Your task to perform on an android device: Do I have any events this weekend? Image 0: 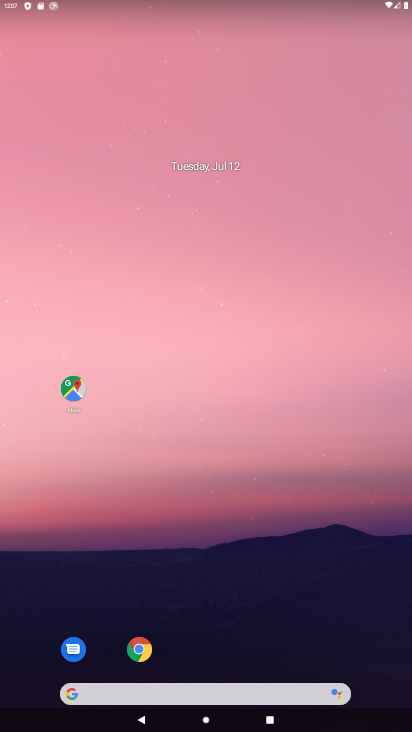
Step 0: drag from (271, 625) to (258, 31)
Your task to perform on an android device: Do I have any events this weekend? Image 1: 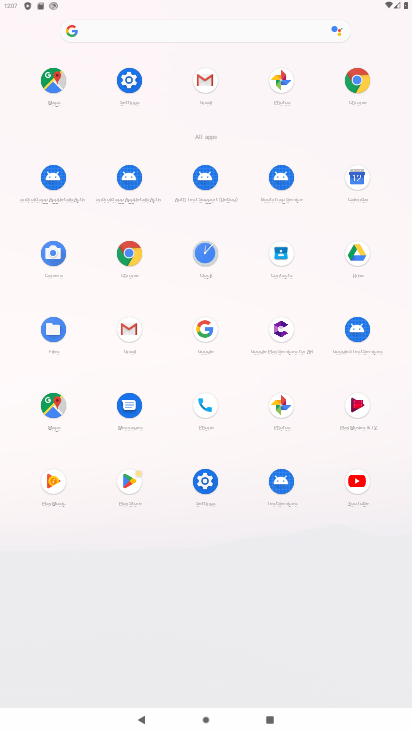
Step 1: click (144, 91)
Your task to perform on an android device: Do I have any events this weekend? Image 2: 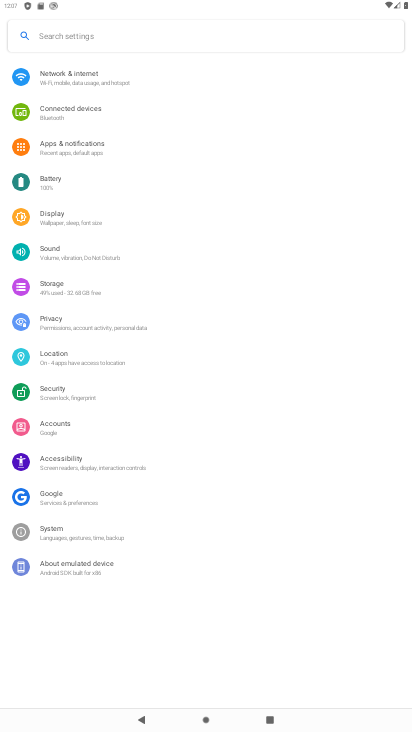
Step 2: press back button
Your task to perform on an android device: Do I have any events this weekend? Image 3: 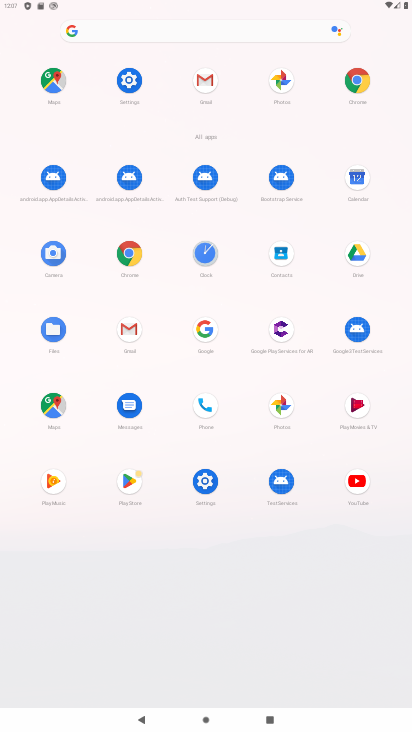
Step 3: click (354, 189)
Your task to perform on an android device: Do I have any events this weekend? Image 4: 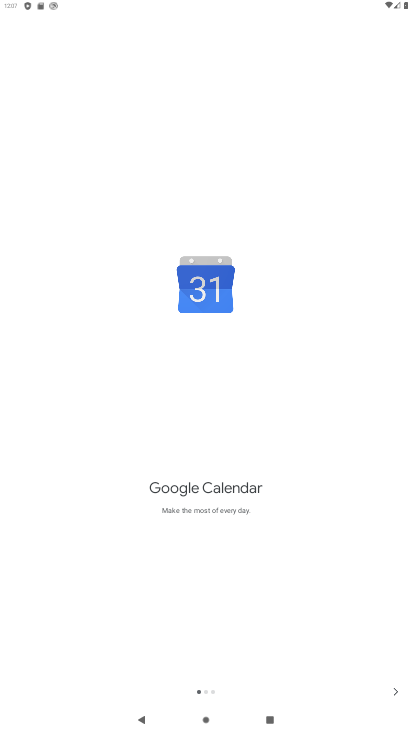
Step 4: click (390, 690)
Your task to perform on an android device: Do I have any events this weekend? Image 5: 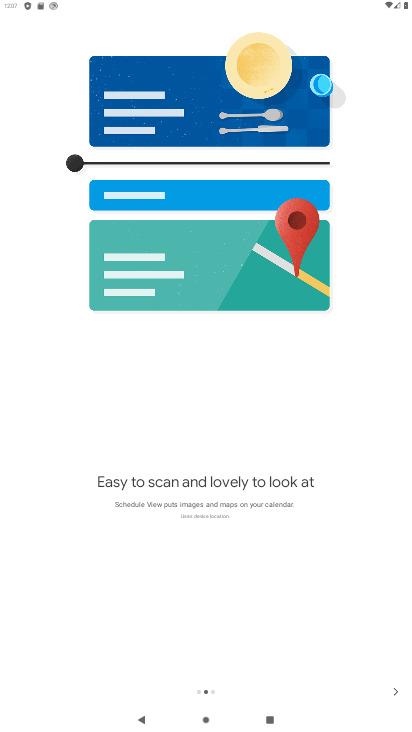
Step 5: click (390, 690)
Your task to perform on an android device: Do I have any events this weekend? Image 6: 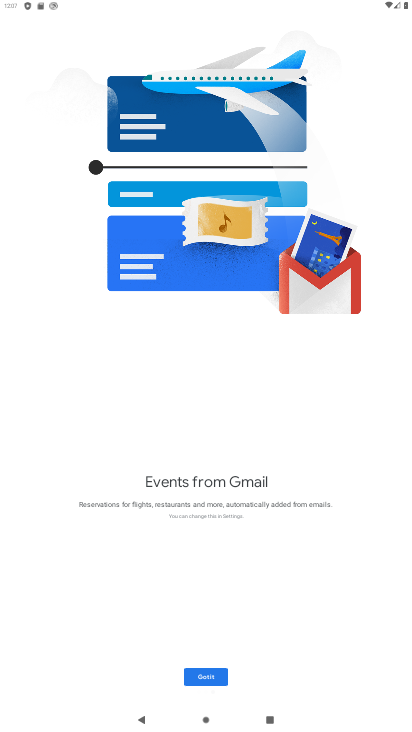
Step 6: click (390, 690)
Your task to perform on an android device: Do I have any events this weekend? Image 7: 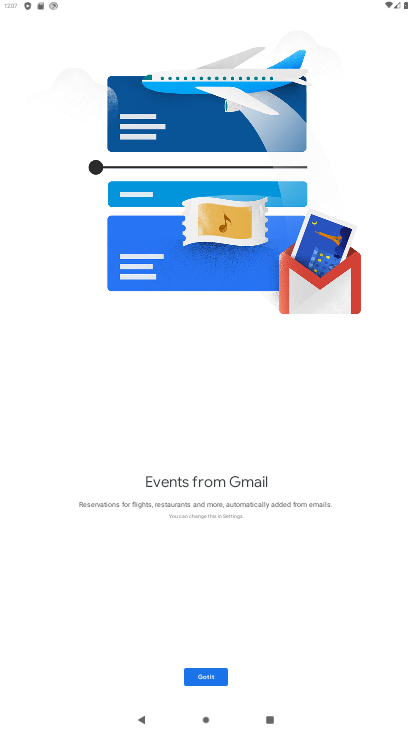
Step 7: click (205, 671)
Your task to perform on an android device: Do I have any events this weekend? Image 8: 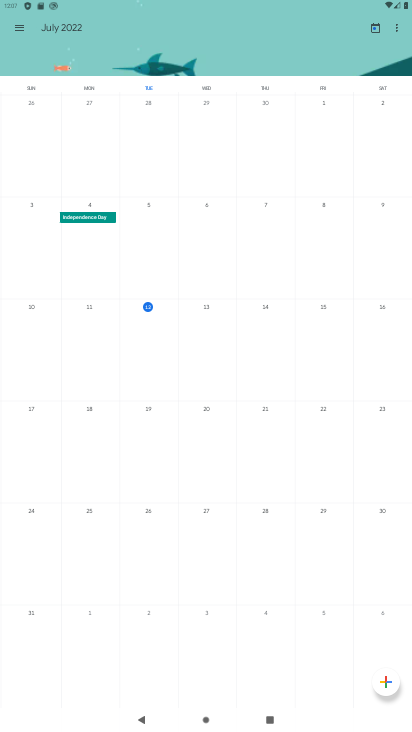
Step 8: task complete